Your task to perform on an android device: open wifi settings Image 0: 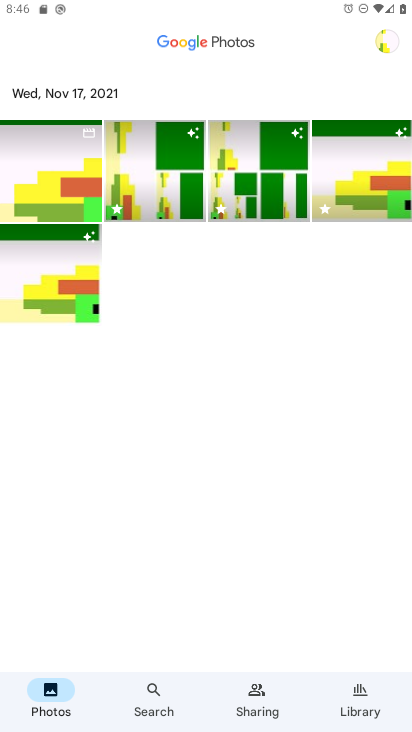
Step 0: press home button
Your task to perform on an android device: open wifi settings Image 1: 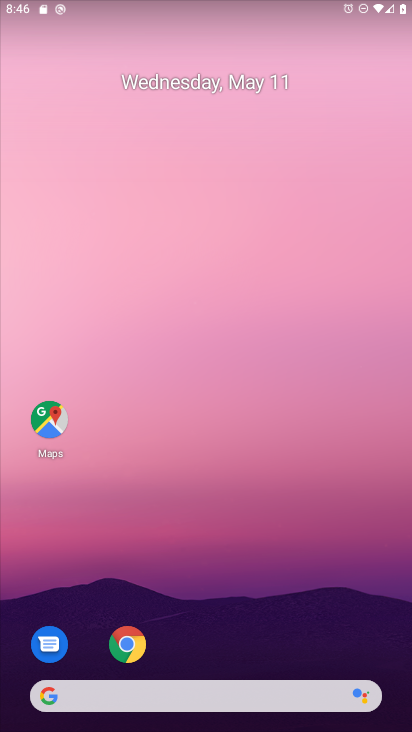
Step 1: drag from (250, 548) to (181, 38)
Your task to perform on an android device: open wifi settings Image 2: 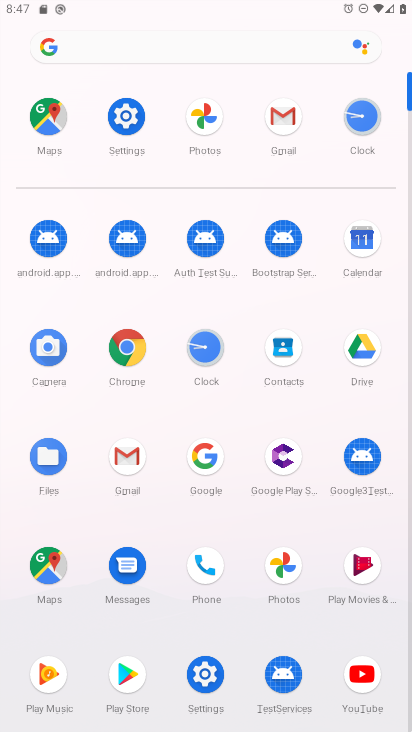
Step 2: click (206, 675)
Your task to perform on an android device: open wifi settings Image 3: 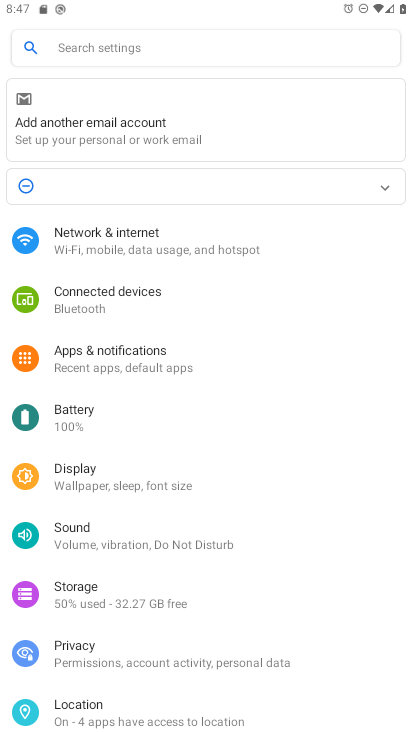
Step 3: click (111, 230)
Your task to perform on an android device: open wifi settings Image 4: 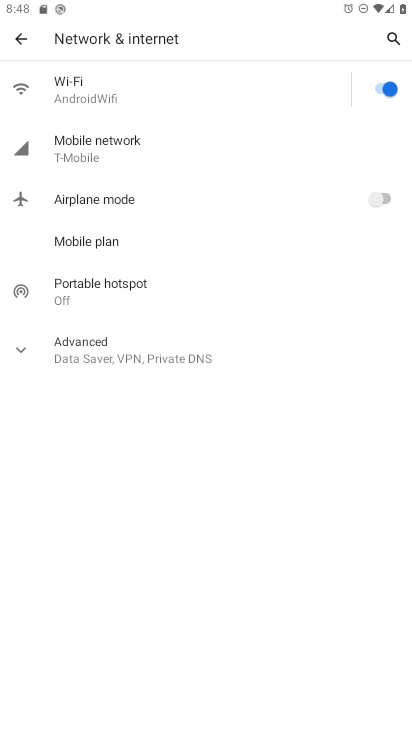
Step 4: click (76, 87)
Your task to perform on an android device: open wifi settings Image 5: 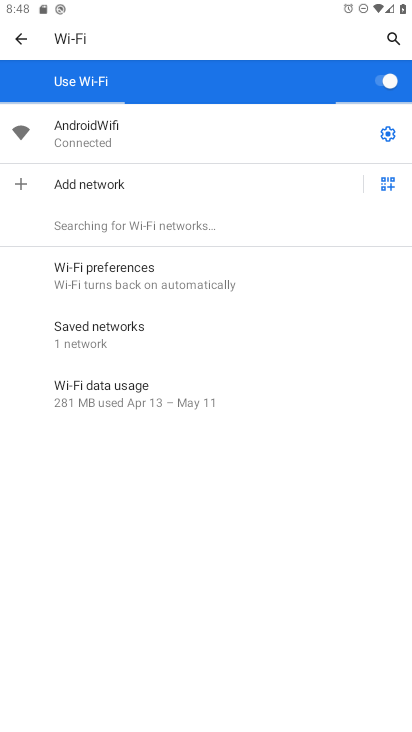
Step 5: task complete